Your task to perform on an android device: remove spam from my inbox in the gmail app Image 0: 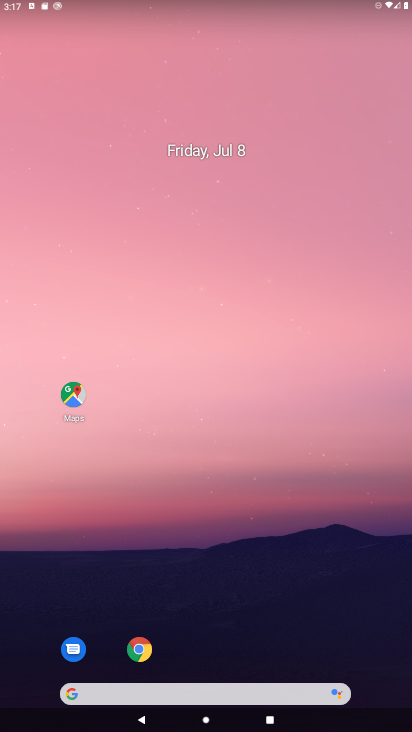
Step 0: drag from (381, 652) to (340, 138)
Your task to perform on an android device: remove spam from my inbox in the gmail app Image 1: 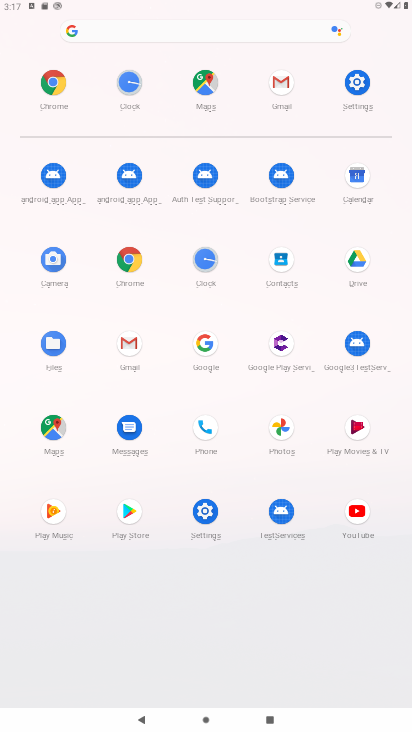
Step 1: click (128, 340)
Your task to perform on an android device: remove spam from my inbox in the gmail app Image 2: 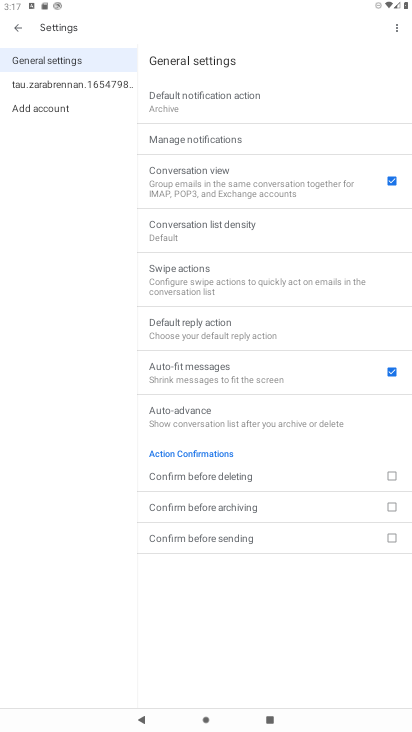
Step 2: press back button
Your task to perform on an android device: remove spam from my inbox in the gmail app Image 3: 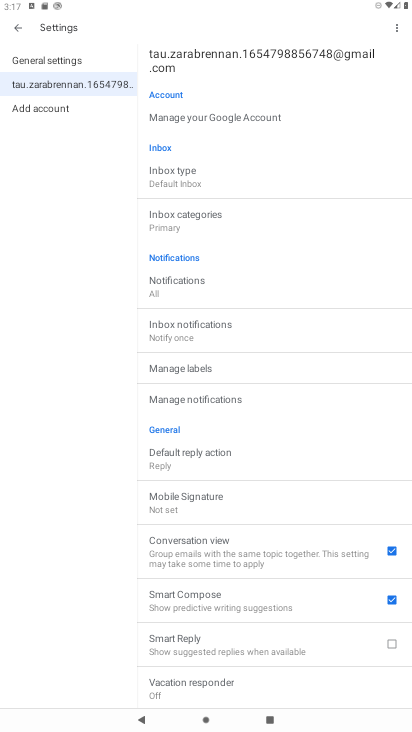
Step 3: press back button
Your task to perform on an android device: remove spam from my inbox in the gmail app Image 4: 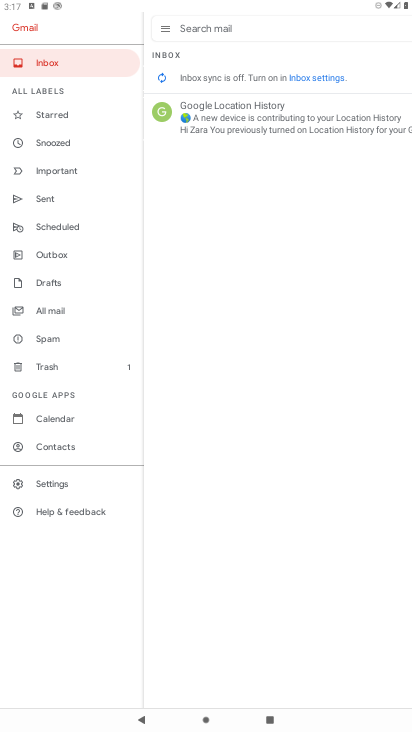
Step 4: click (33, 336)
Your task to perform on an android device: remove spam from my inbox in the gmail app Image 5: 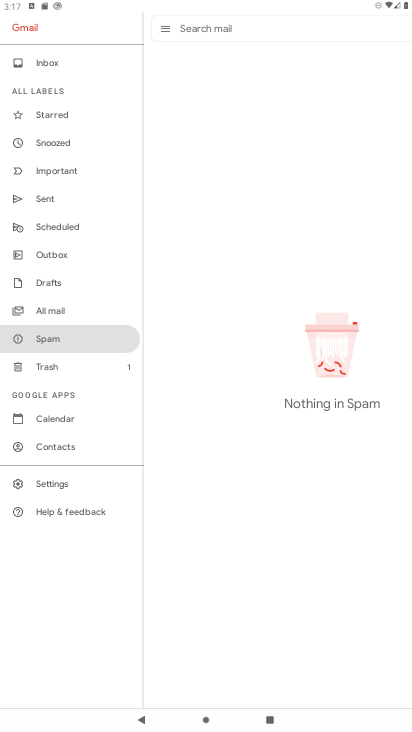
Step 5: task complete